Your task to perform on an android device: Show me the alarms in the clock app Image 0: 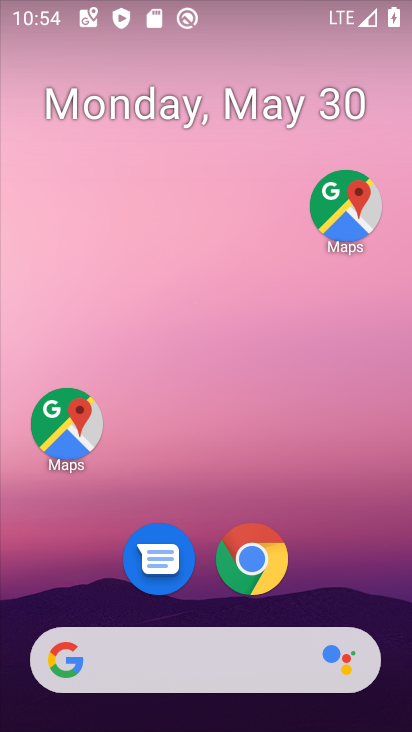
Step 0: drag from (372, 574) to (275, 0)
Your task to perform on an android device: Show me the alarms in the clock app Image 1: 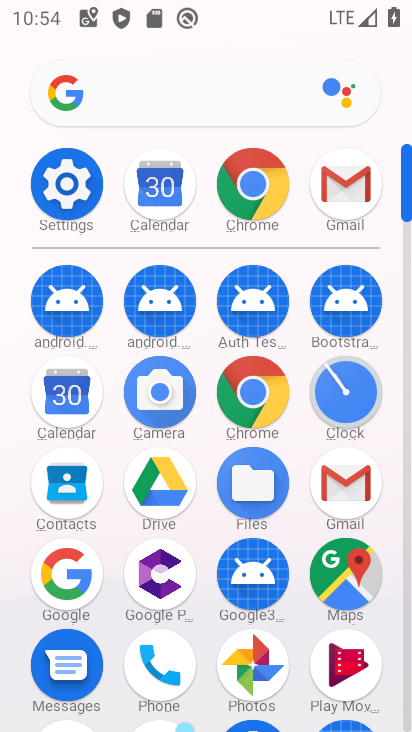
Step 1: click (344, 384)
Your task to perform on an android device: Show me the alarms in the clock app Image 2: 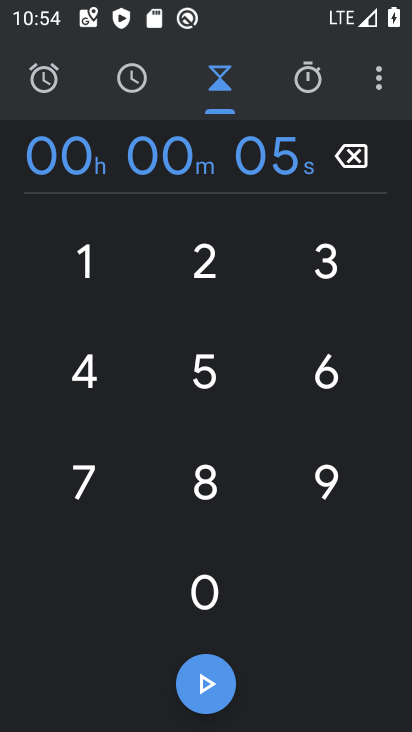
Step 2: click (78, 81)
Your task to perform on an android device: Show me the alarms in the clock app Image 3: 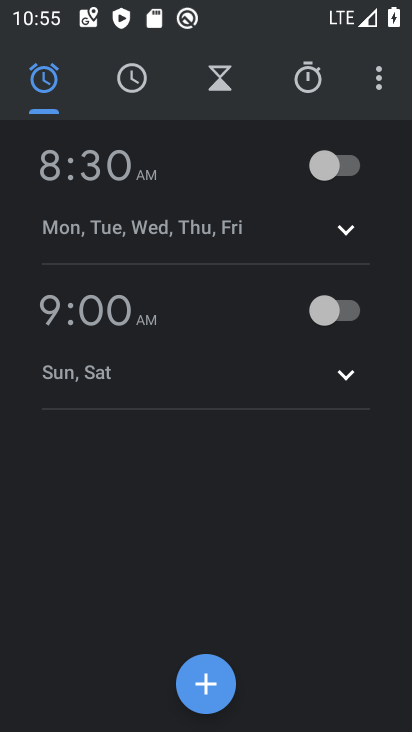
Step 3: task complete